Your task to perform on an android device: Open Maps and search for coffee Image 0: 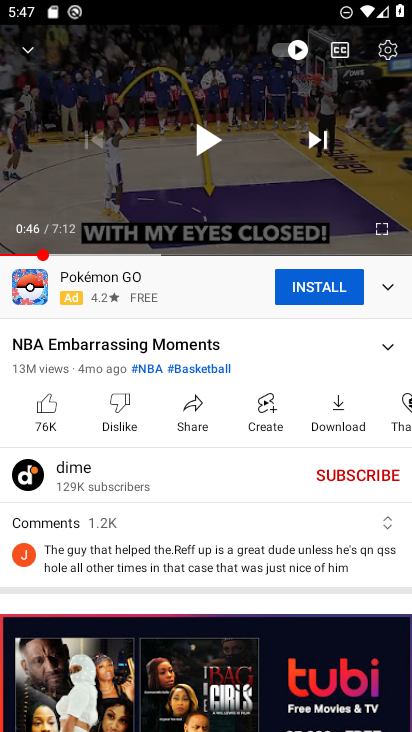
Step 0: press home button
Your task to perform on an android device: Open Maps and search for coffee Image 1: 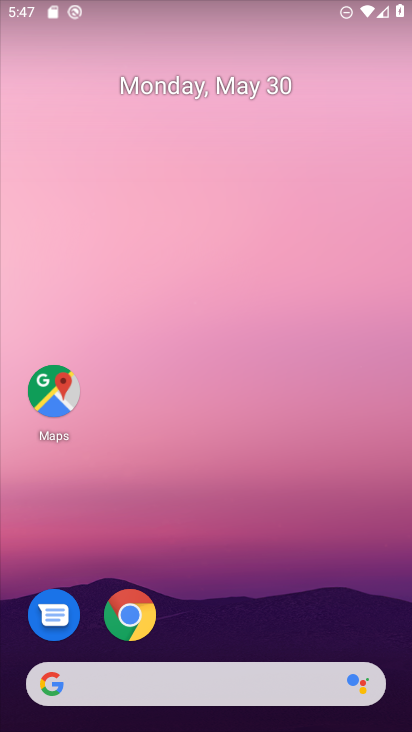
Step 1: click (62, 404)
Your task to perform on an android device: Open Maps and search for coffee Image 2: 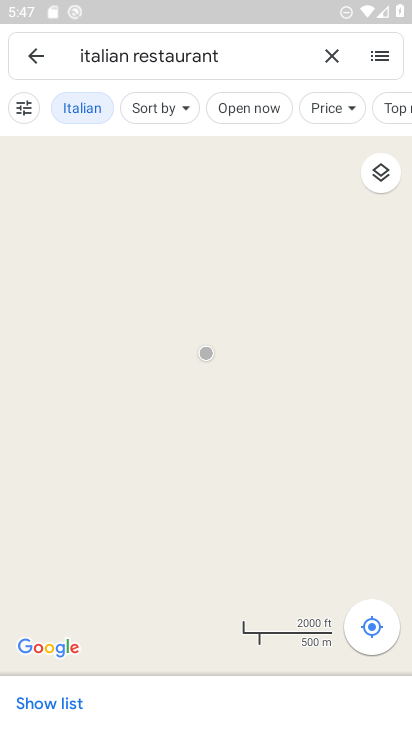
Step 2: click (324, 56)
Your task to perform on an android device: Open Maps and search for coffee Image 3: 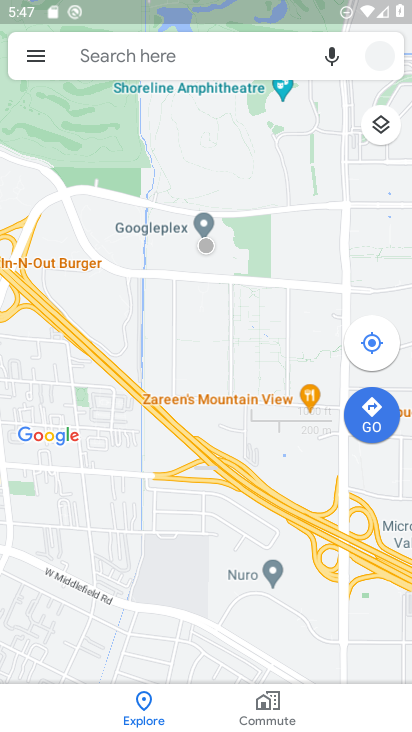
Step 3: click (235, 49)
Your task to perform on an android device: Open Maps and search for coffee Image 4: 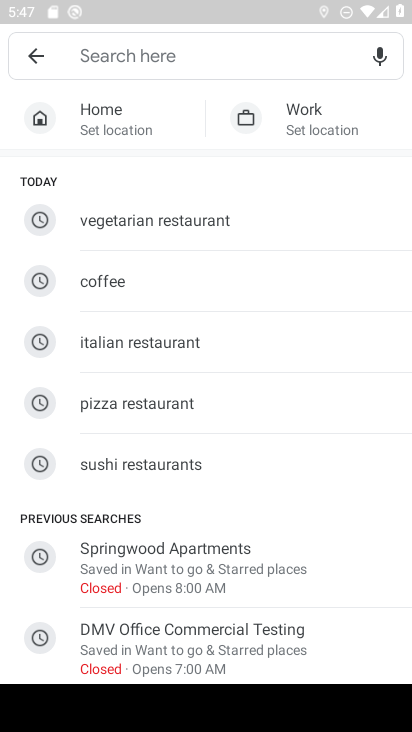
Step 4: click (194, 285)
Your task to perform on an android device: Open Maps and search for coffee Image 5: 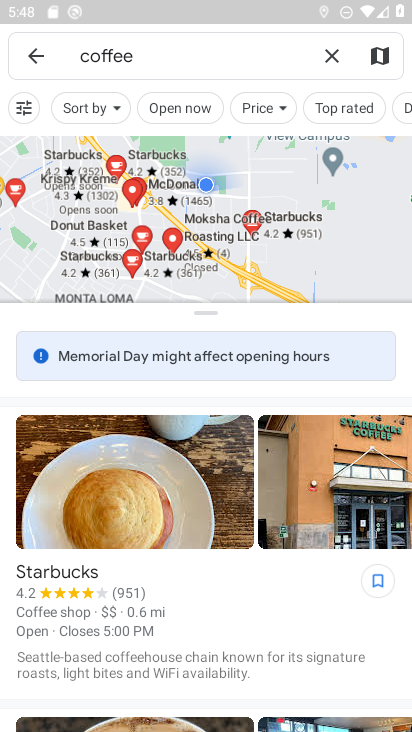
Step 5: task complete